Your task to perform on an android device: remove spam from my inbox in the gmail app Image 0: 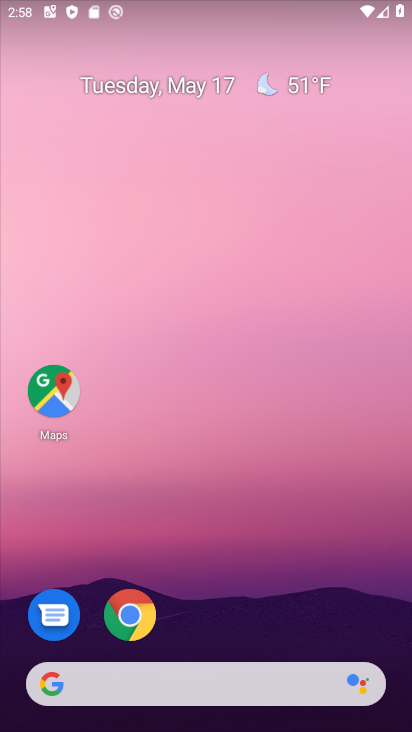
Step 0: drag from (216, 637) to (270, 125)
Your task to perform on an android device: remove spam from my inbox in the gmail app Image 1: 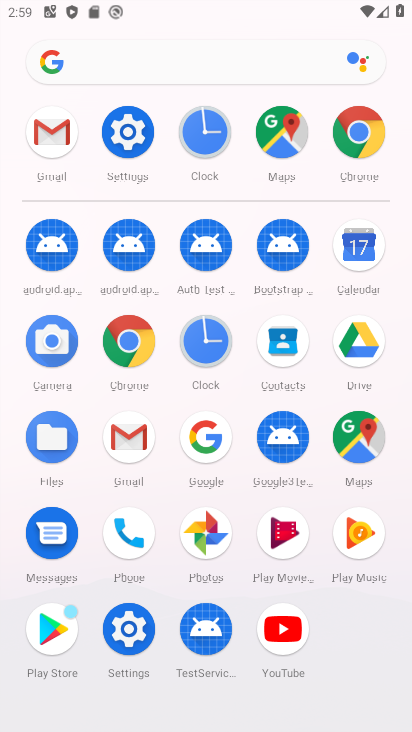
Step 1: click (126, 428)
Your task to perform on an android device: remove spam from my inbox in the gmail app Image 2: 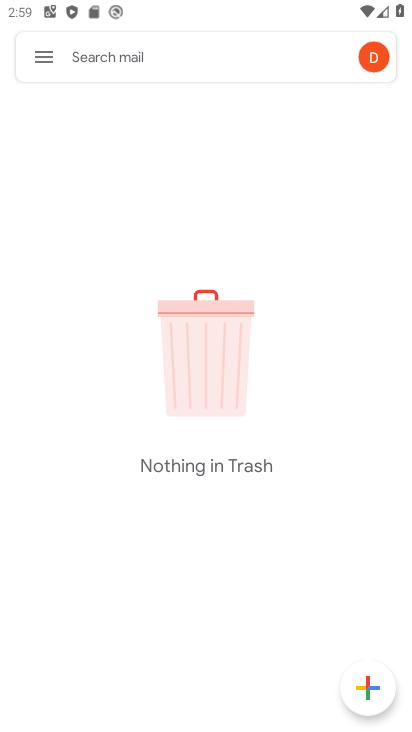
Step 2: click (41, 56)
Your task to perform on an android device: remove spam from my inbox in the gmail app Image 3: 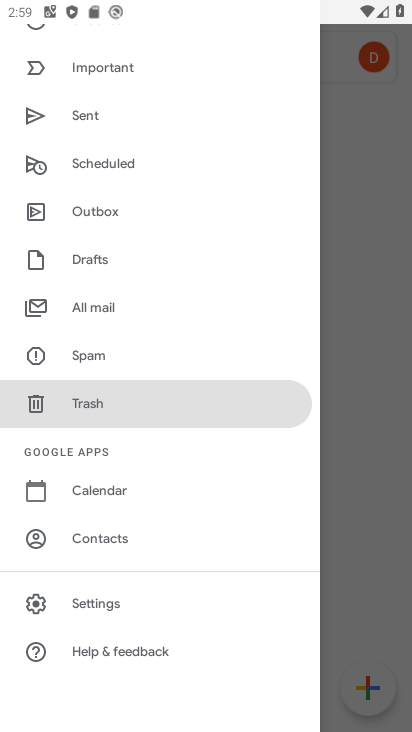
Step 3: click (92, 357)
Your task to perform on an android device: remove spam from my inbox in the gmail app Image 4: 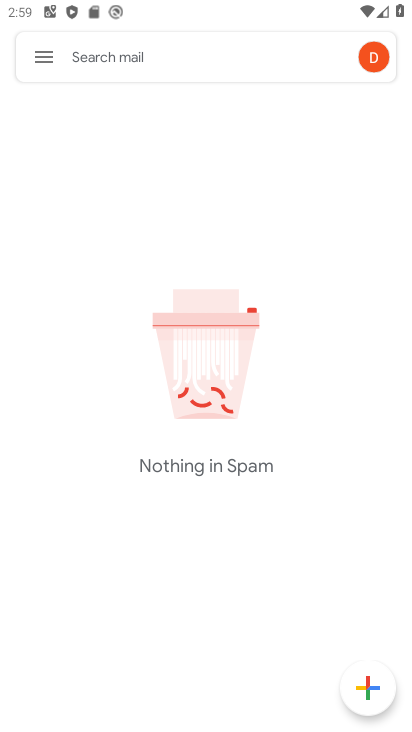
Step 4: task complete